Your task to perform on an android device: What is the speed of a rocket? Image 0: 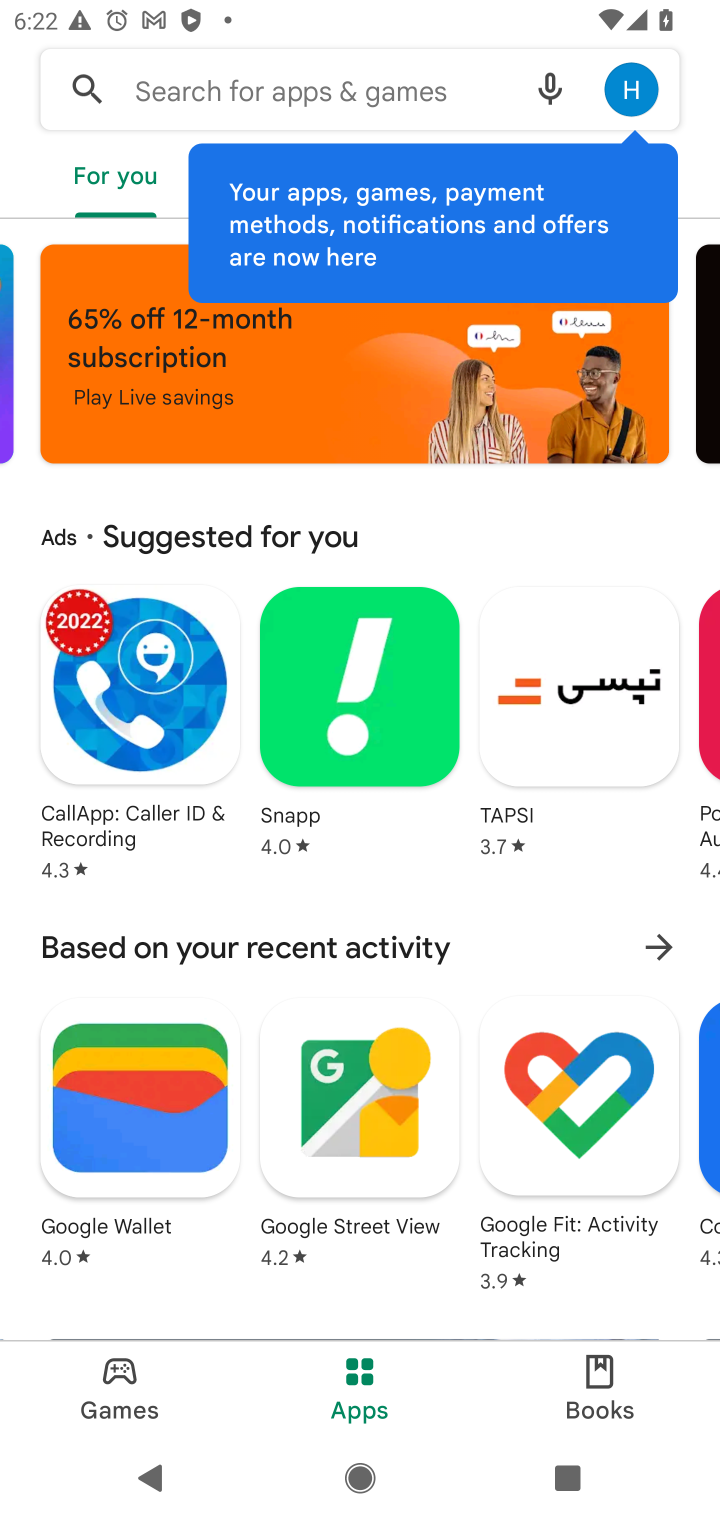
Step 0: press home button
Your task to perform on an android device: What is the speed of a rocket? Image 1: 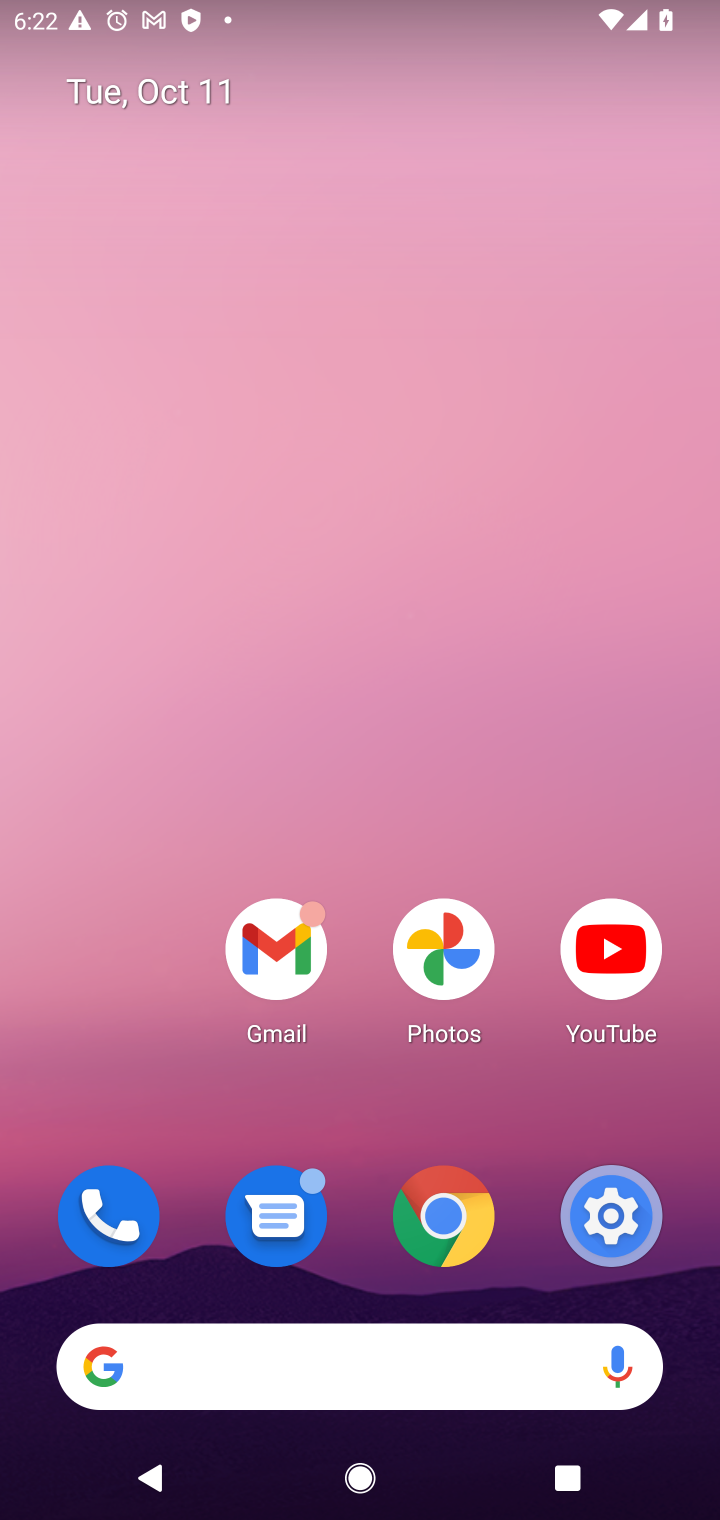
Step 1: click (438, 1266)
Your task to perform on an android device: What is the speed of a rocket? Image 2: 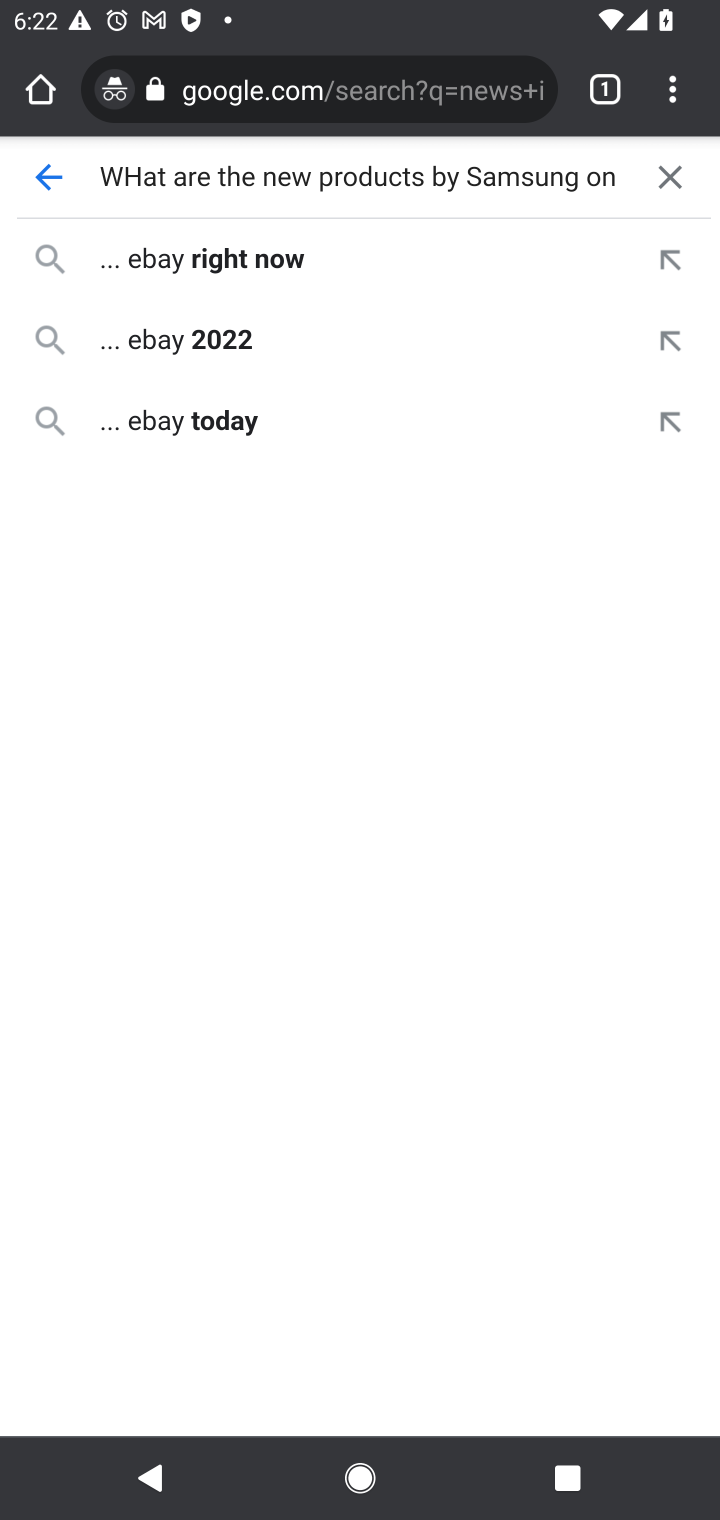
Step 2: click (342, 172)
Your task to perform on an android device: What is the speed of a rocket? Image 3: 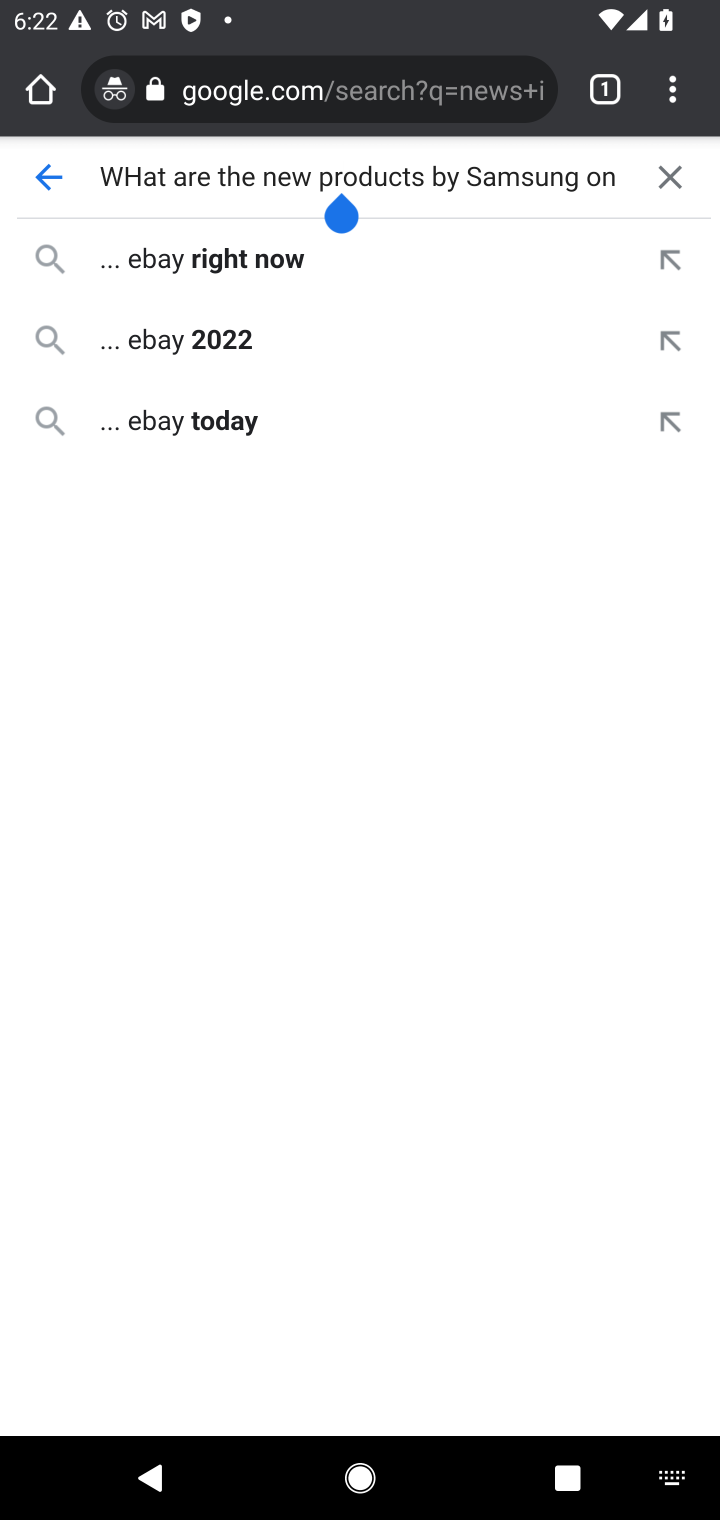
Step 3: click (675, 176)
Your task to perform on an android device: What is the speed of a rocket? Image 4: 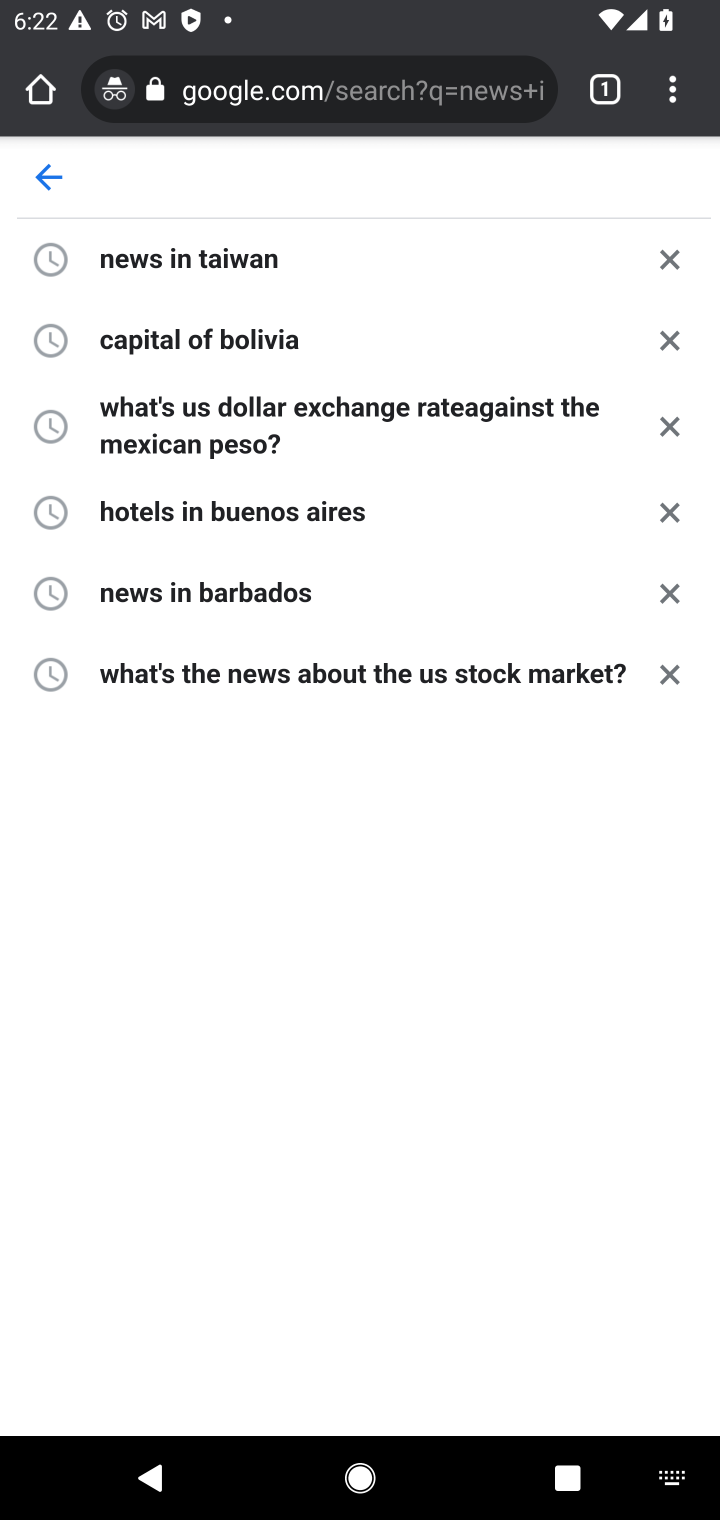
Step 4: type "What is the speed of a rocket?"
Your task to perform on an android device: What is the speed of a rocket? Image 5: 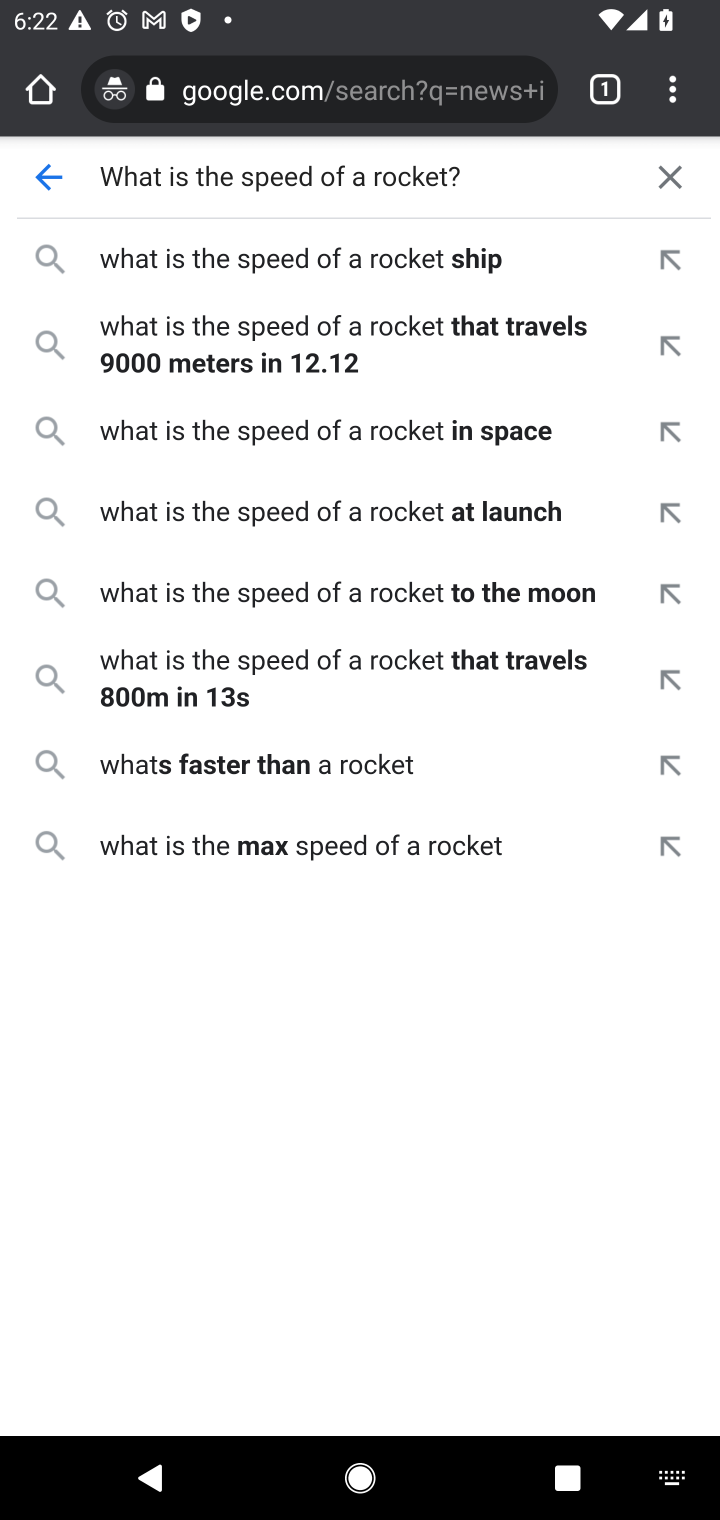
Step 5: press enter
Your task to perform on an android device: What is the speed of a rocket? Image 6: 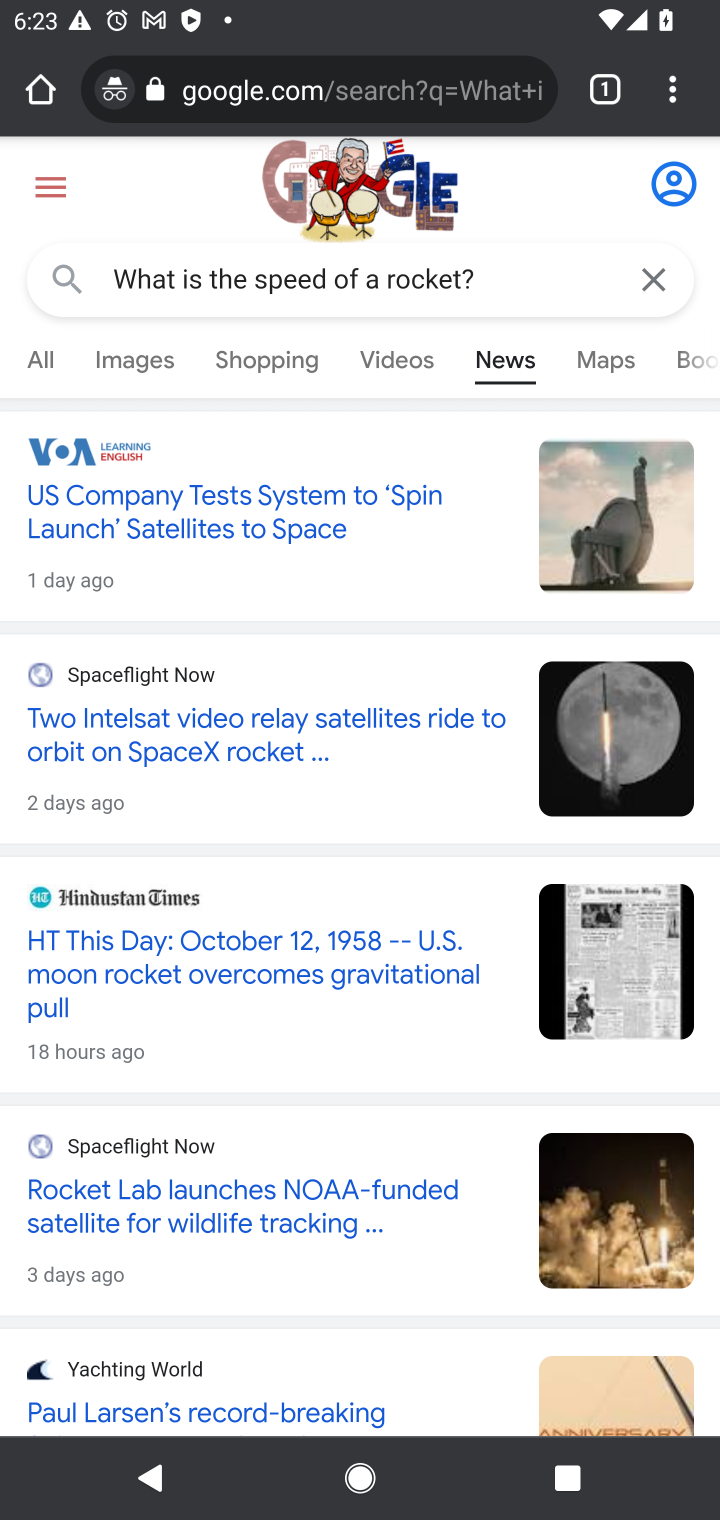
Step 6: click (52, 371)
Your task to perform on an android device: What is the speed of a rocket? Image 7: 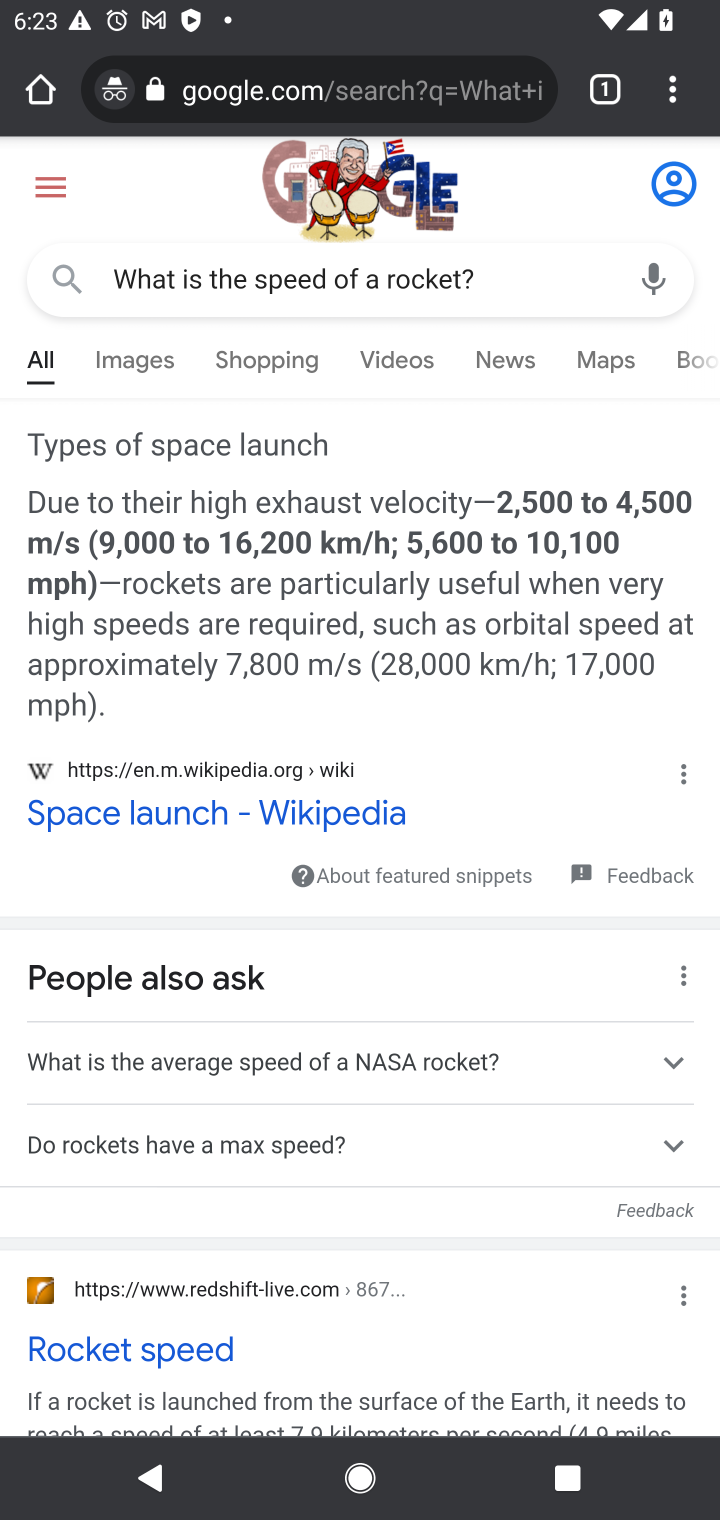
Step 7: task complete